Your task to perform on an android device: Open settings Image 0: 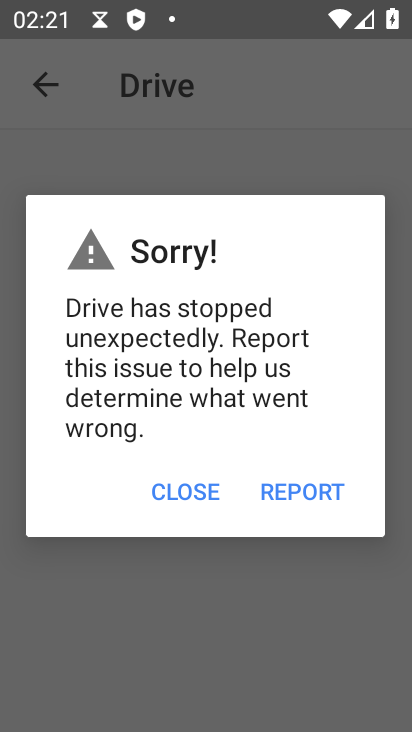
Step 0: press home button
Your task to perform on an android device: Open settings Image 1: 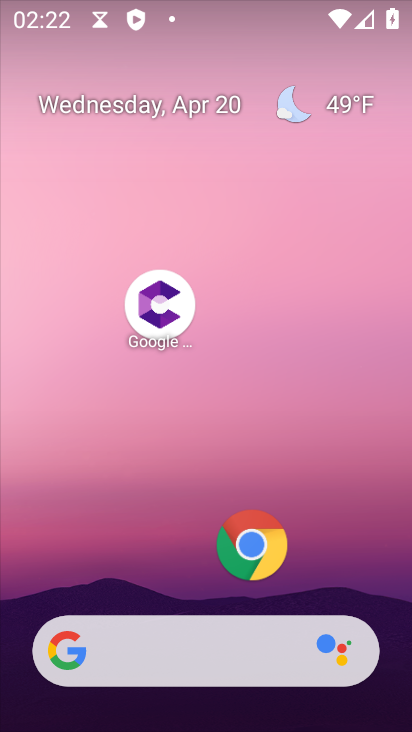
Step 1: drag from (129, 570) to (384, 47)
Your task to perform on an android device: Open settings Image 2: 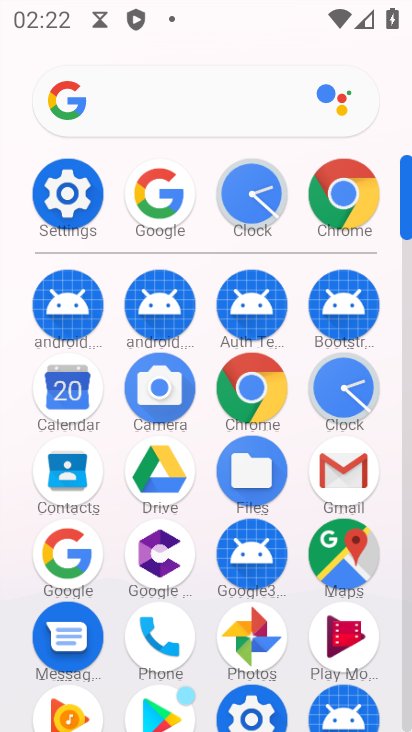
Step 2: click (71, 193)
Your task to perform on an android device: Open settings Image 3: 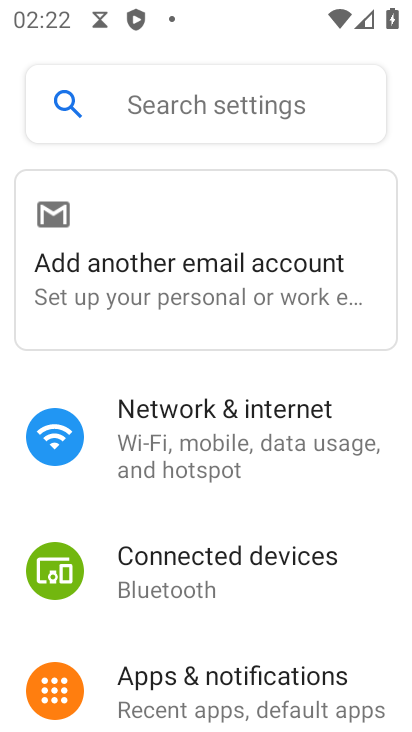
Step 3: task complete